Your task to perform on an android device: Open Reddit.com Image 0: 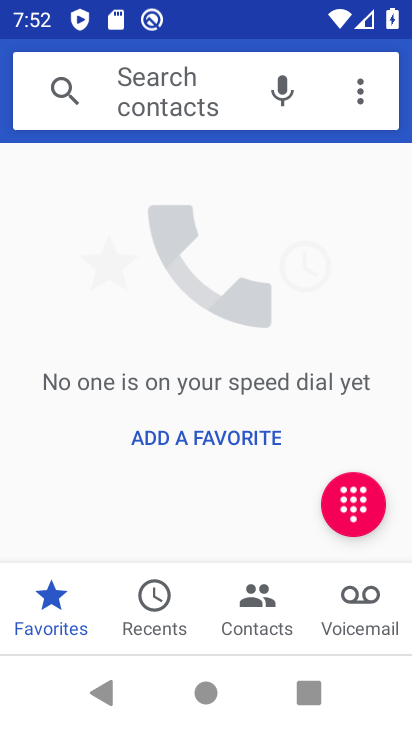
Step 0: press home button
Your task to perform on an android device: Open Reddit.com Image 1: 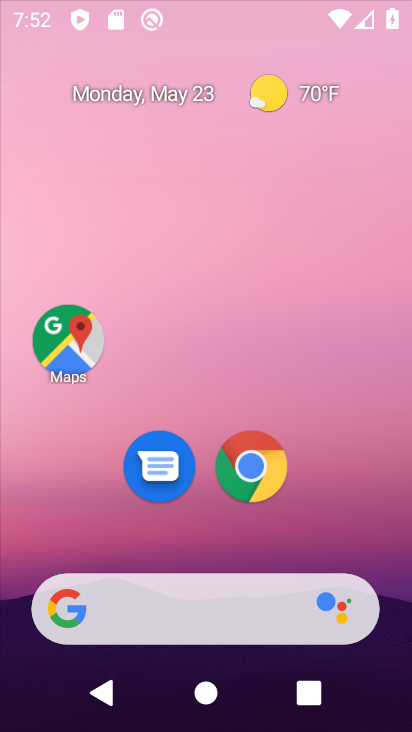
Step 1: drag from (196, 628) to (219, 276)
Your task to perform on an android device: Open Reddit.com Image 2: 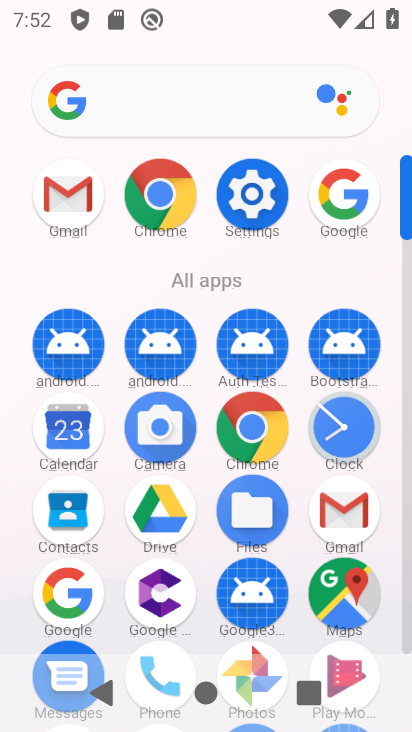
Step 2: click (167, 225)
Your task to perform on an android device: Open Reddit.com Image 3: 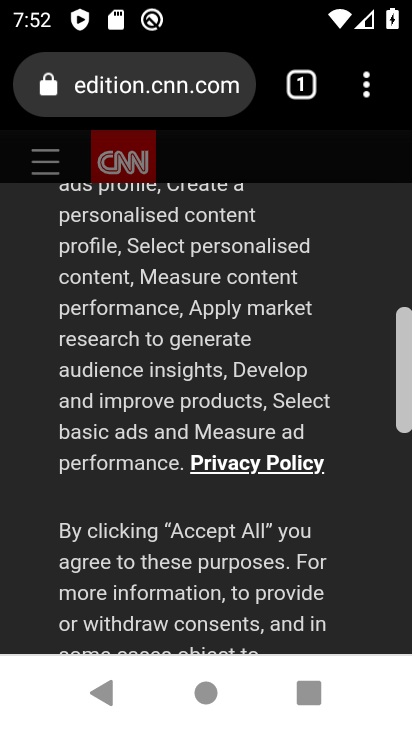
Step 3: click (194, 96)
Your task to perform on an android device: Open Reddit.com Image 4: 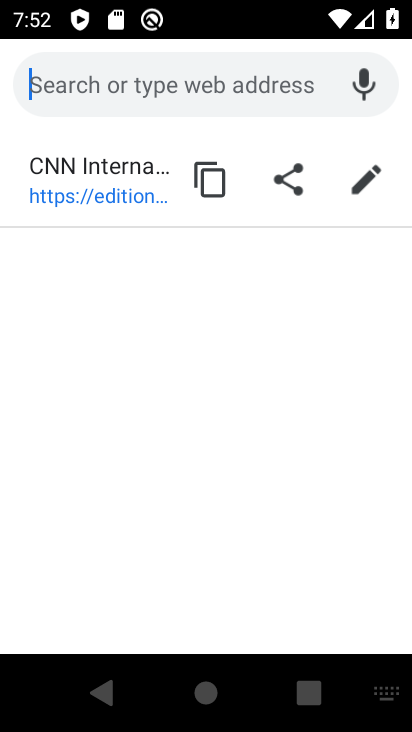
Step 4: type "reddit"
Your task to perform on an android device: Open Reddit.com Image 5: 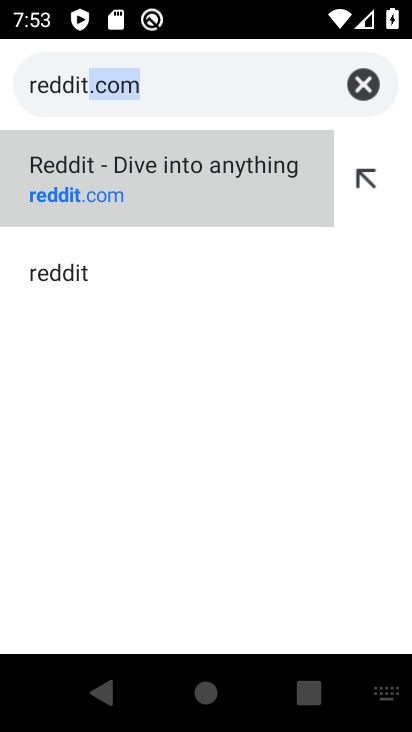
Step 5: click (135, 177)
Your task to perform on an android device: Open Reddit.com Image 6: 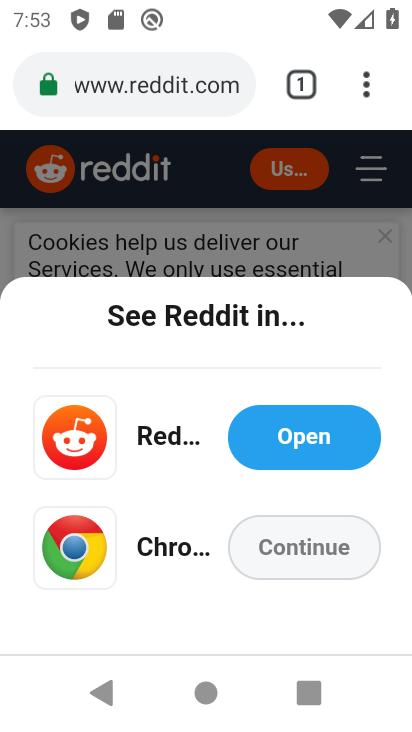
Step 6: task complete